Your task to perform on an android device: Open Amazon Image 0: 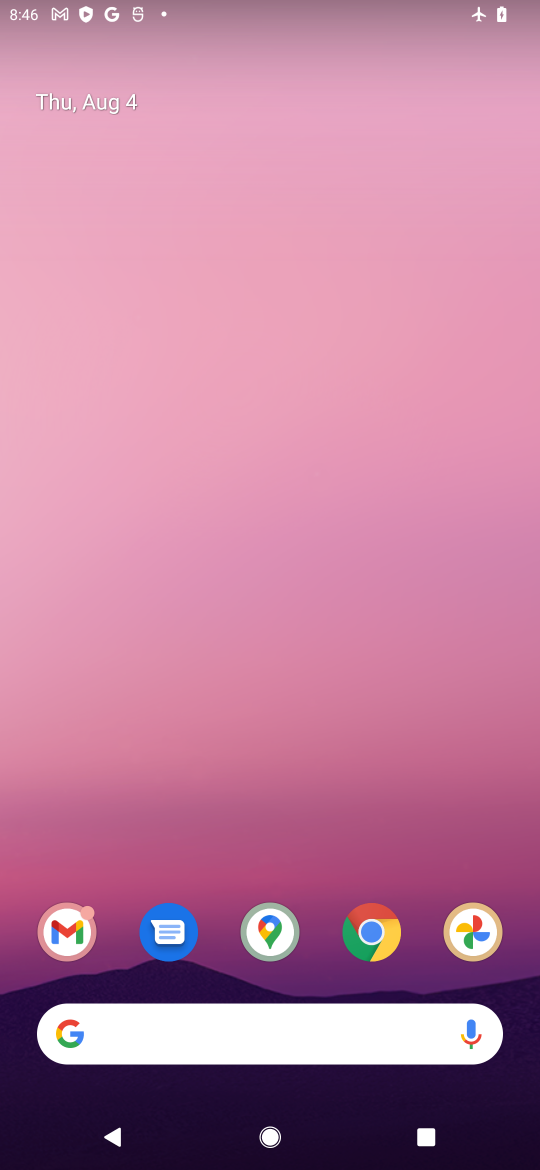
Step 0: click (367, 928)
Your task to perform on an android device: Open Amazon Image 1: 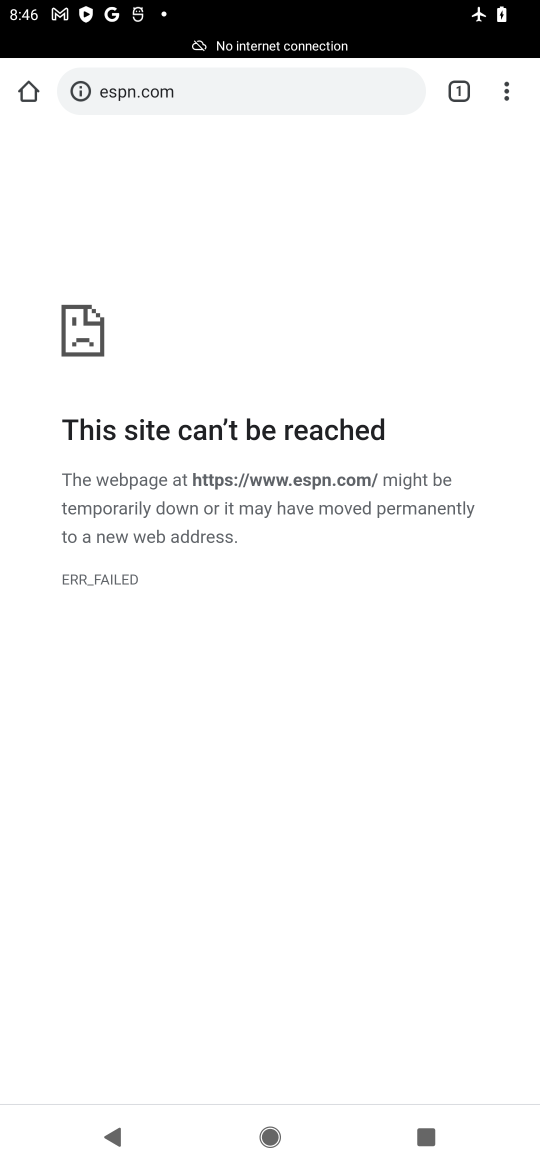
Step 1: press back button
Your task to perform on an android device: Open Amazon Image 2: 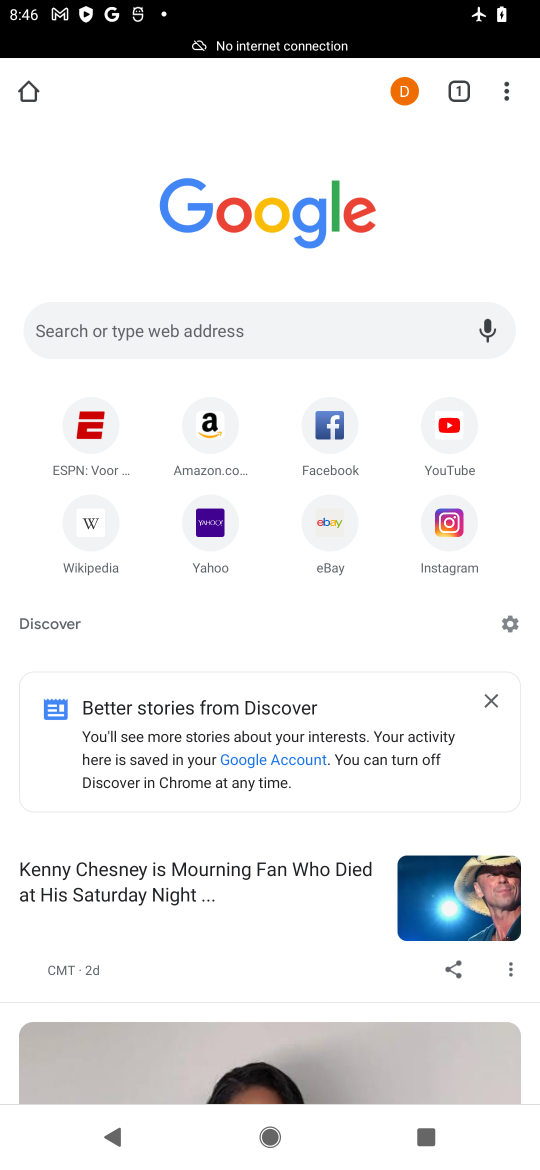
Step 2: press back button
Your task to perform on an android device: Open Amazon Image 3: 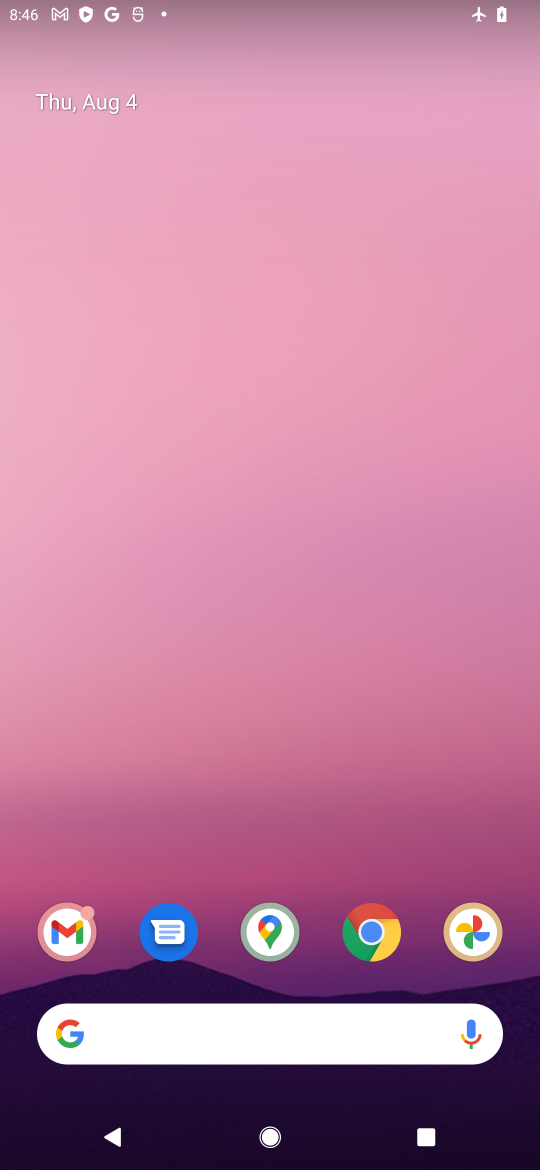
Step 3: drag from (217, 931) to (216, 209)
Your task to perform on an android device: Open Amazon Image 4: 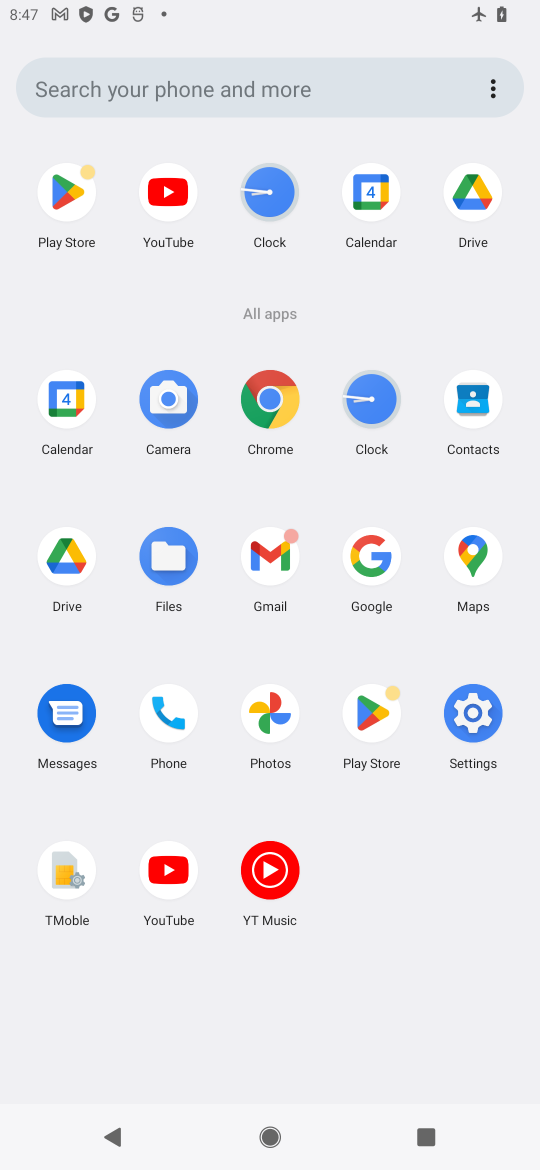
Step 4: click (487, 728)
Your task to perform on an android device: Open Amazon Image 5: 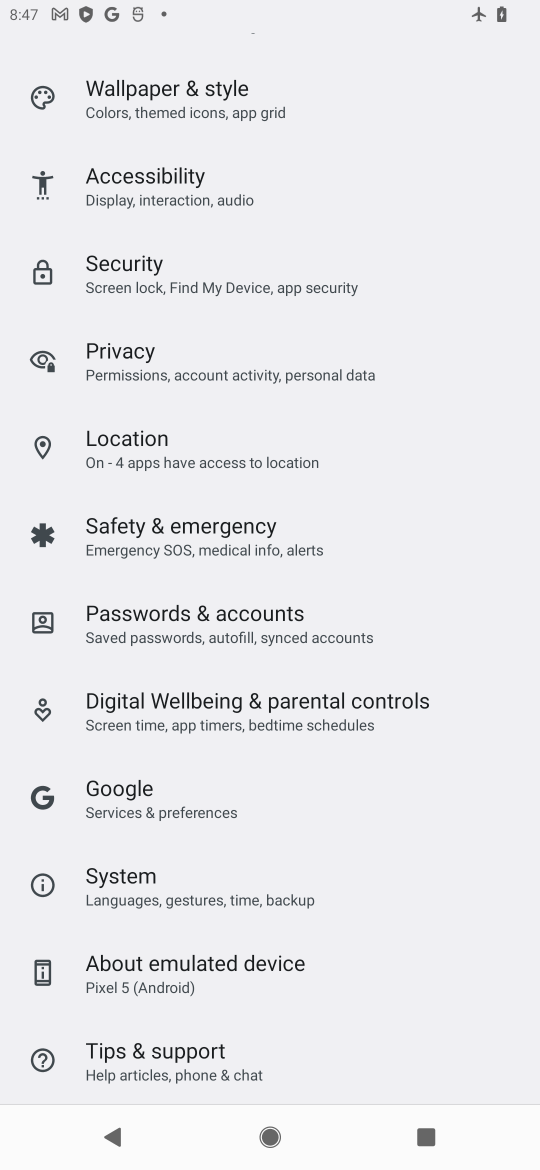
Step 5: drag from (234, 308) to (214, 810)
Your task to perform on an android device: Open Amazon Image 6: 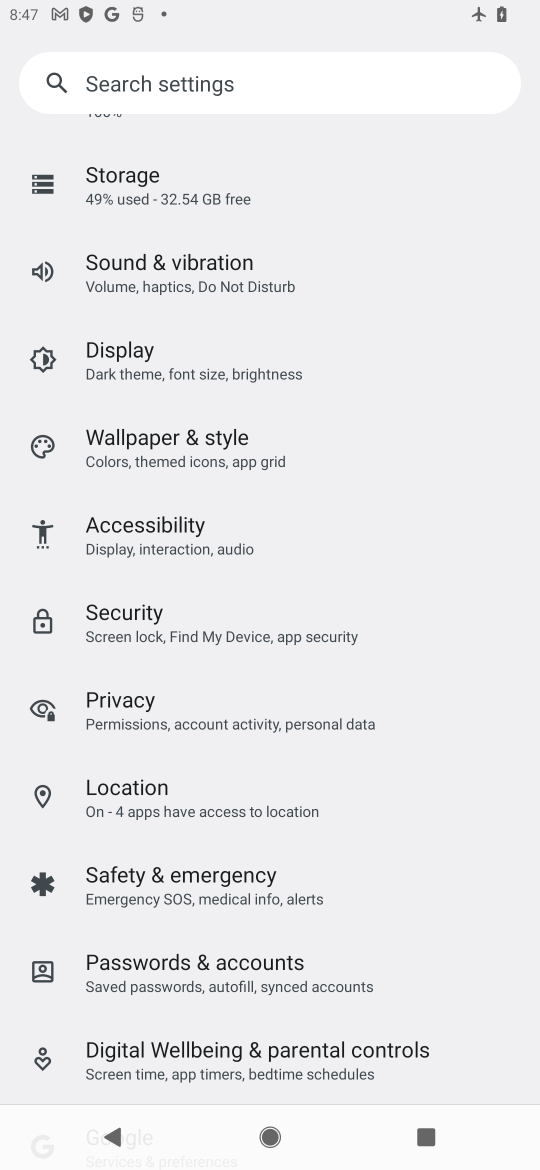
Step 6: drag from (236, 662) to (236, 990)
Your task to perform on an android device: Open Amazon Image 7: 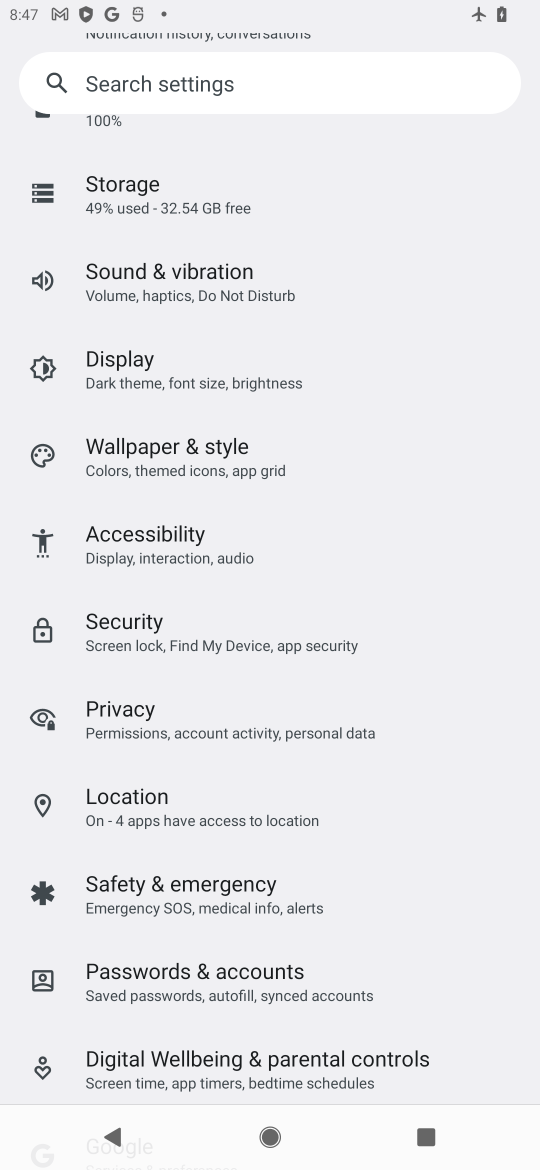
Step 7: drag from (202, 439) to (202, 810)
Your task to perform on an android device: Open Amazon Image 8: 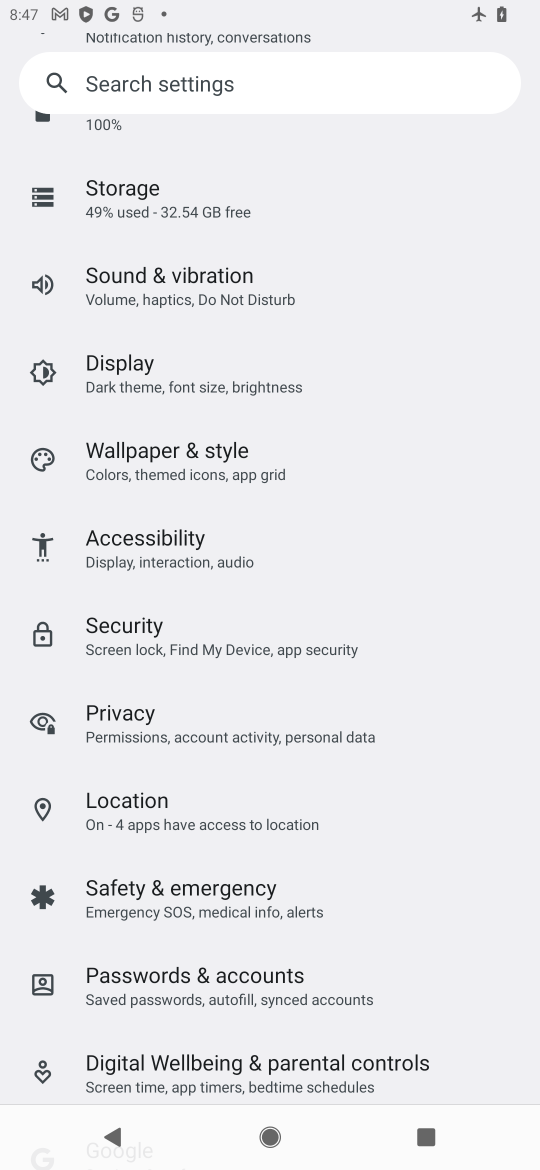
Step 8: drag from (157, 184) to (192, 744)
Your task to perform on an android device: Open Amazon Image 9: 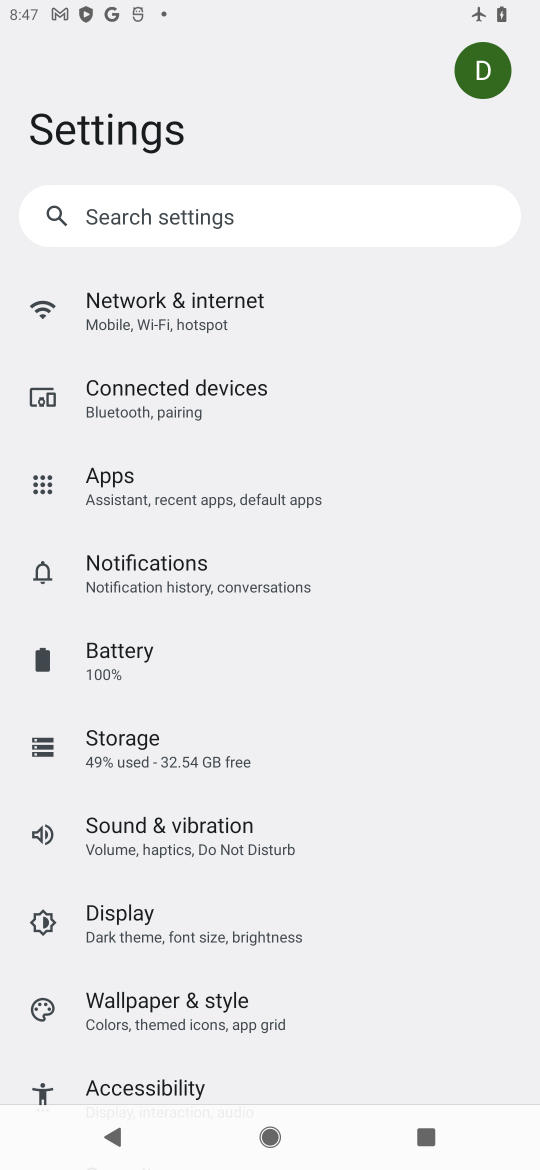
Step 9: drag from (378, 264) to (312, 740)
Your task to perform on an android device: Open Amazon Image 10: 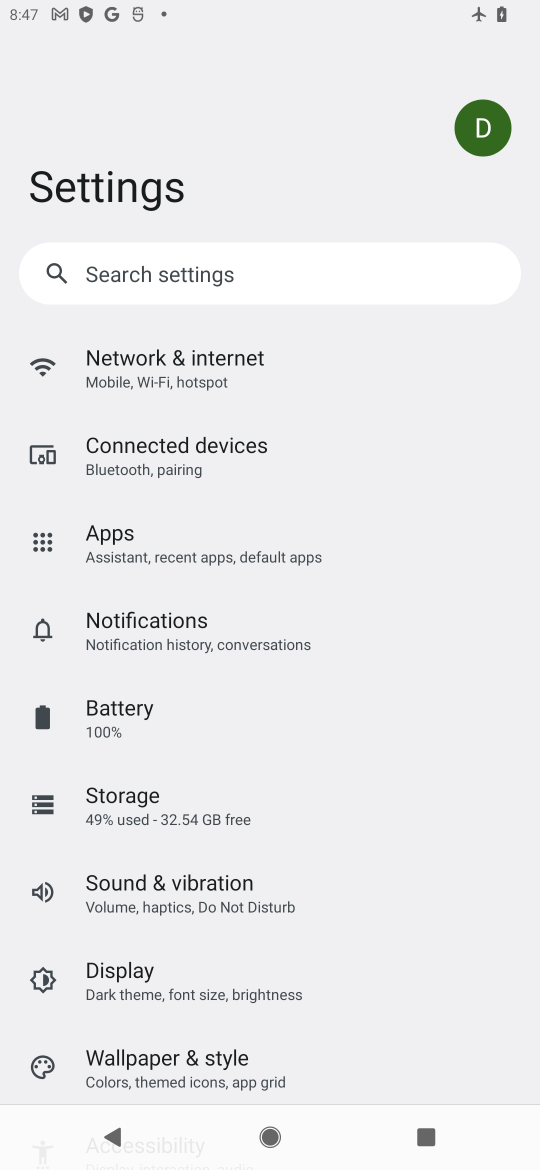
Step 10: click (147, 377)
Your task to perform on an android device: Open Amazon Image 11: 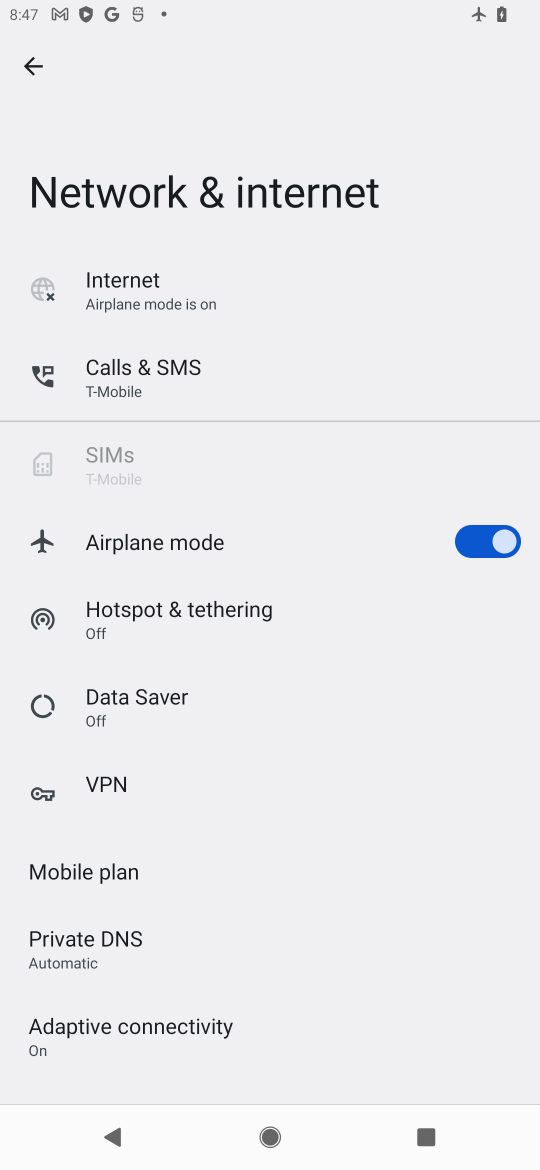
Step 11: click (460, 543)
Your task to perform on an android device: Open Amazon Image 12: 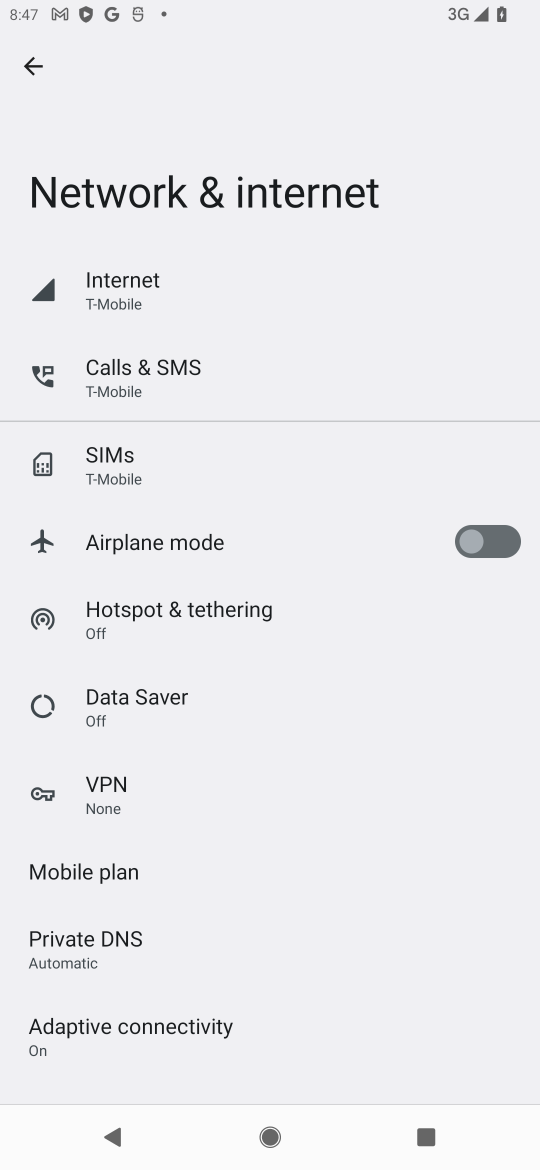
Step 12: press back button
Your task to perform on an android device: Open Amazon Image 13: 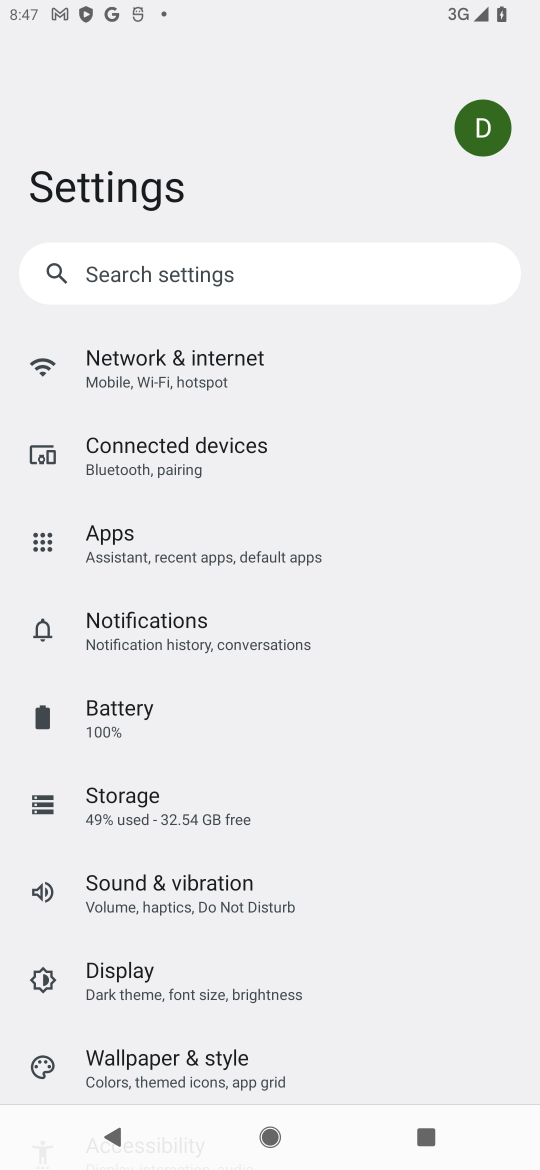
Step 13: press back button
Your task to perform on an android device: Open Amazon Image 14: 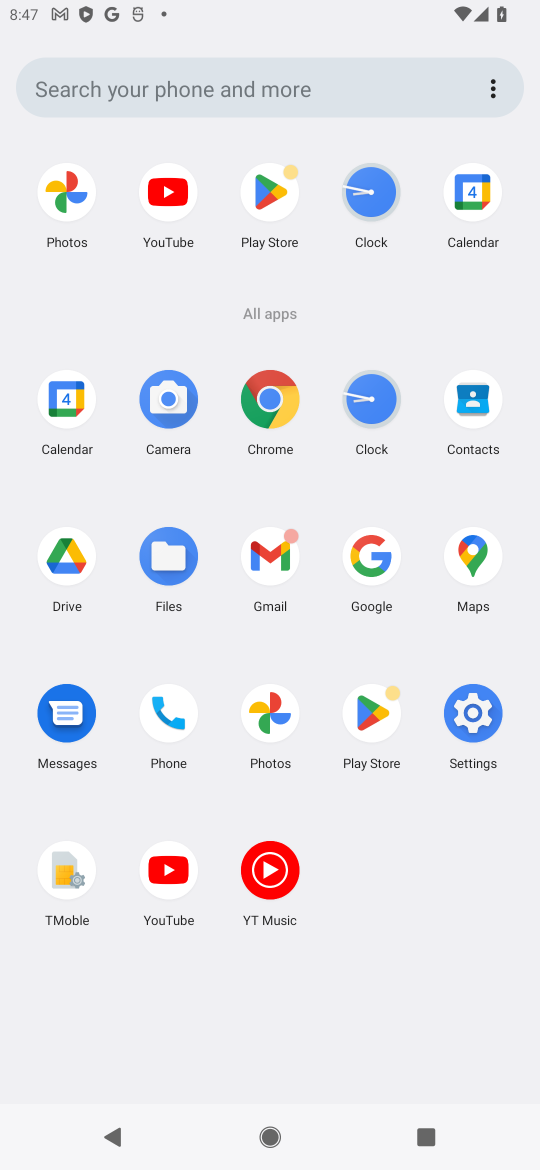
Step 14: click (262, 407)
Your task to perform on an android device: Open Amazon Image 15: 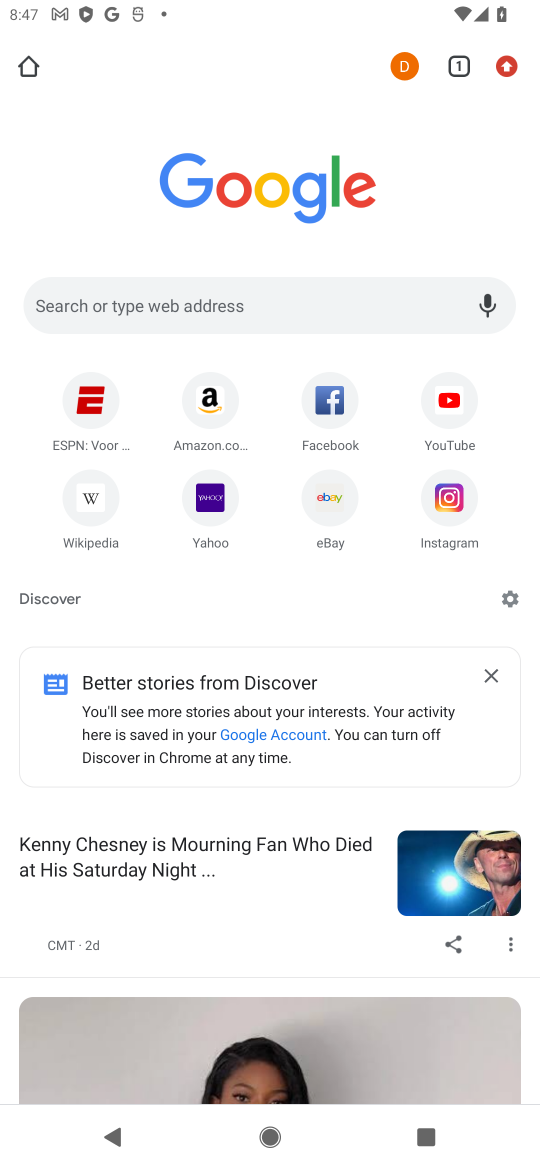
Step 15: click (210, 411)
Your task to perform on an android device: Open Amazon Image 16: 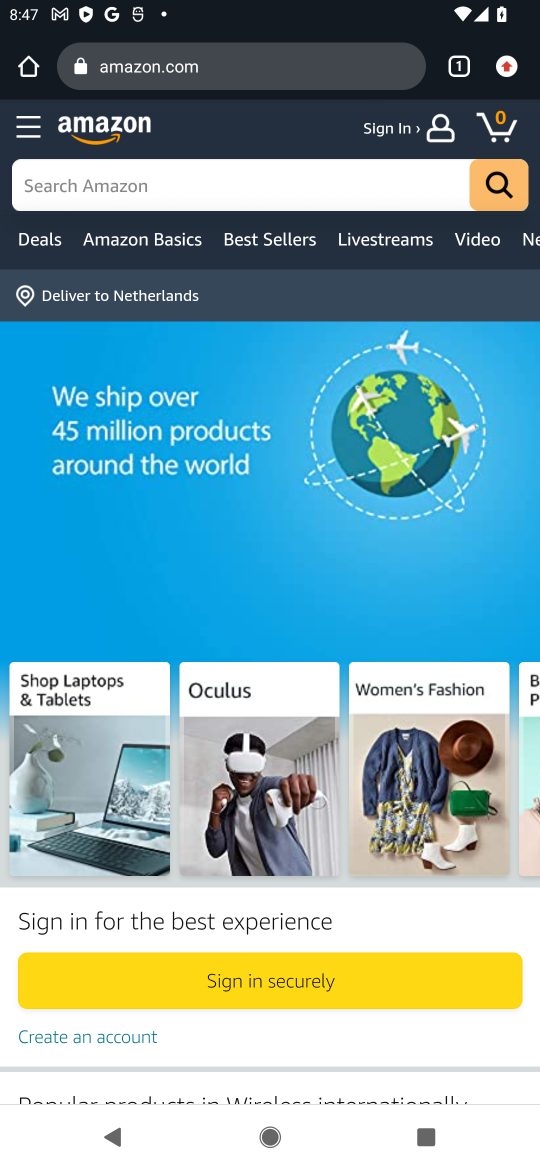
Step 16: task complete